Your task to perform on an android device: set default search engine in the chrome app Image 0: 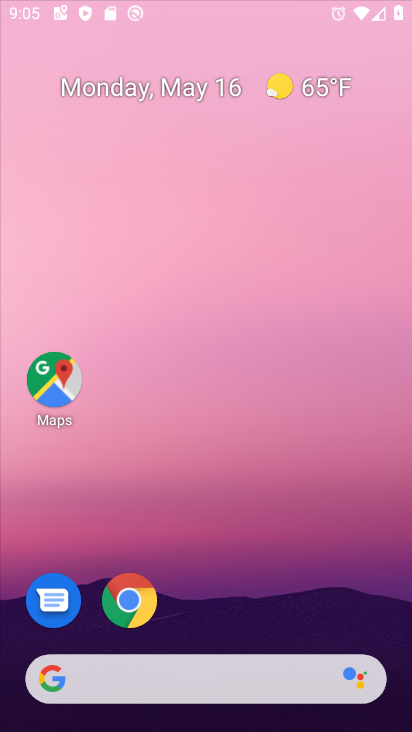
Step 0: click (329, 28)
Your task to perform on an android device: set default search engine in the chrome app Image 1: 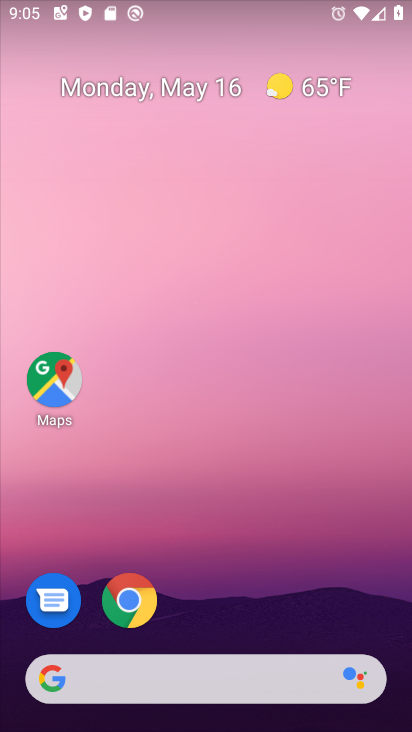
Step 1: drag from (177, 628) to (193, 21)
Your task to perform on an android device: set default search engine in the chrome app Image 2: 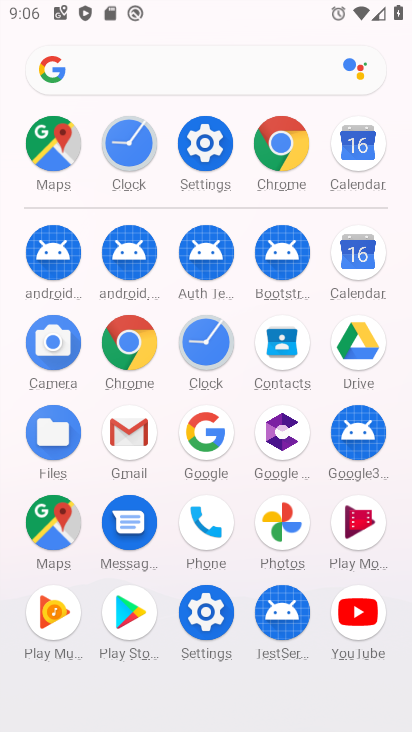
Step 2: click (124, 346)
Your task to perform on an android device: set default search engine in the chrome app Image 3: 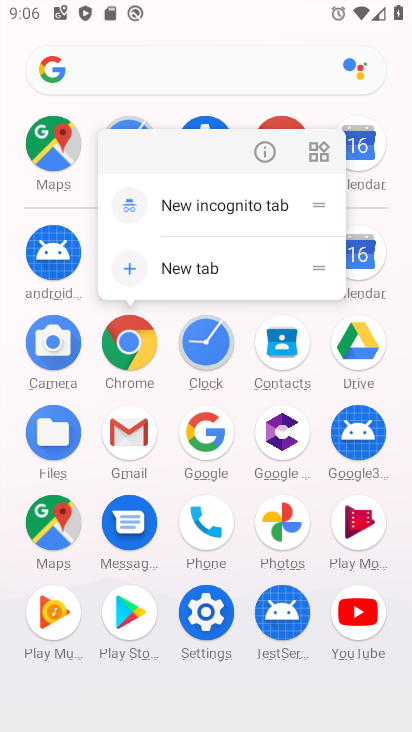
Step 3: click (277, 150)
Your task to perform on an android device: set default search engine in the chrome app Image 4: 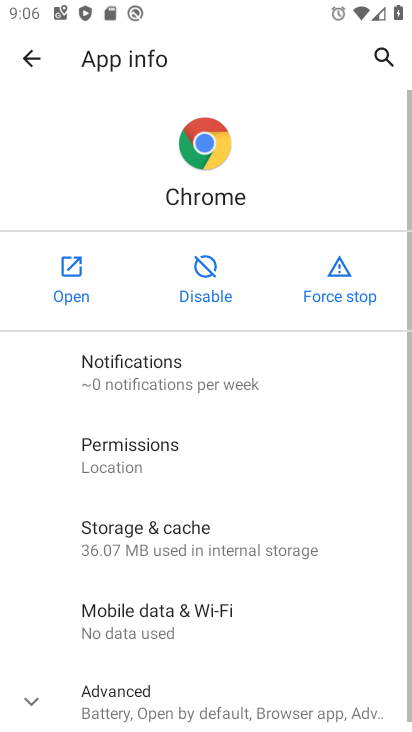
Step 4: click (55, 270)
Your task to perform on an android device: set default search engine in the chrome app Image 5: 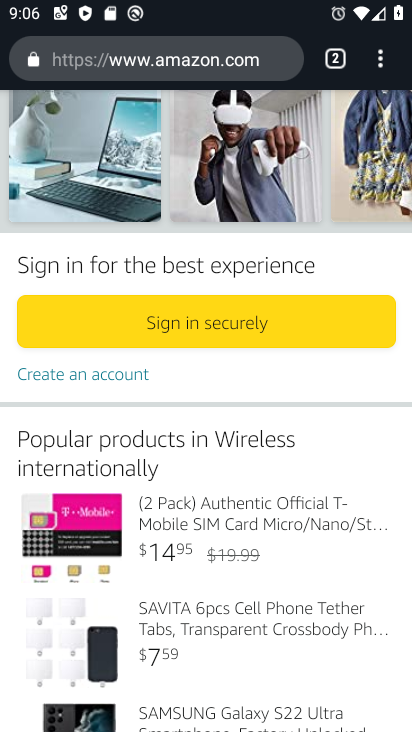
Step 5: drag from (244, 151) to (362, 626)
Your task to perform on an android device: set default search engine in the chrome app Image 6: 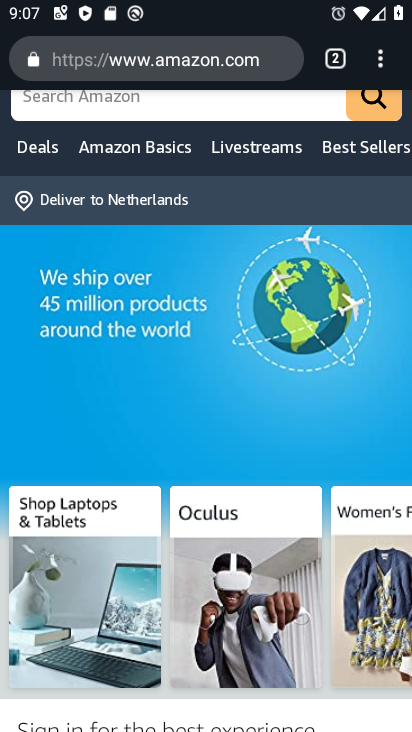
Step 6: click (388, 64)
Your task to perform on an android device: set default search engine in the chrome app Image 7: 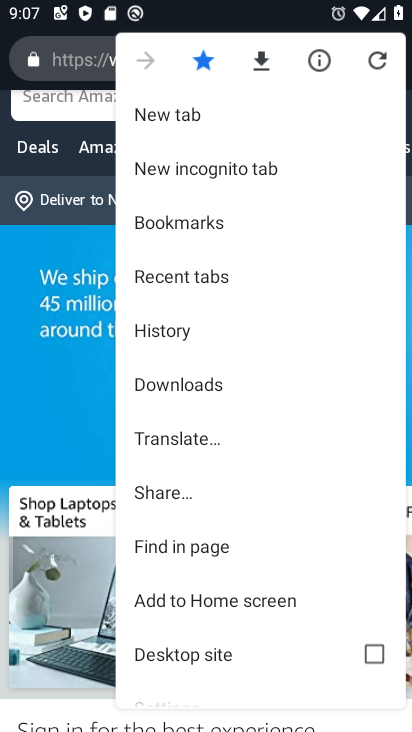
Step 7: drag from (236, 642) to (272, 145)
Your task to perform on an android device: set default search engine in the chrome app Image 8: 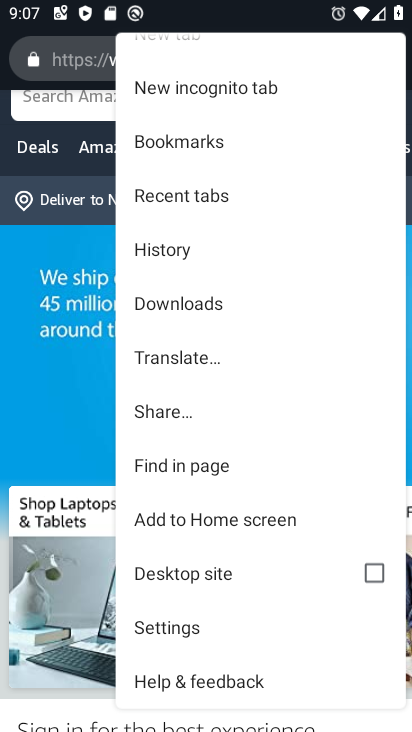
Step 8: click (200, 626)
Your task to perform on an android device: set default search engine in the chrome app Image 9: 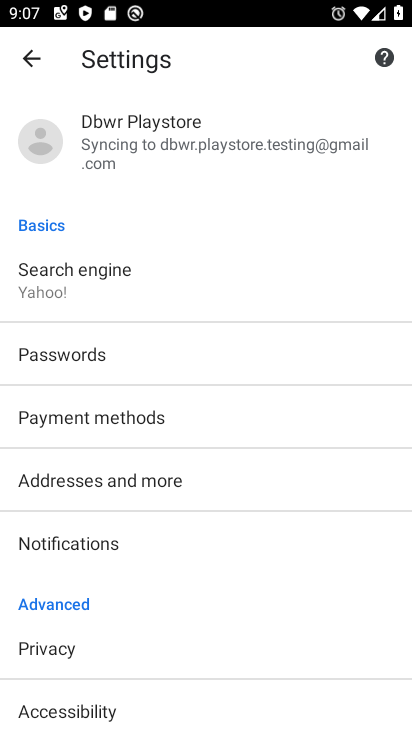
Step 9: click (93, 279)
Your task to perform on an android device: set default search engine in the chrome app Image 10: 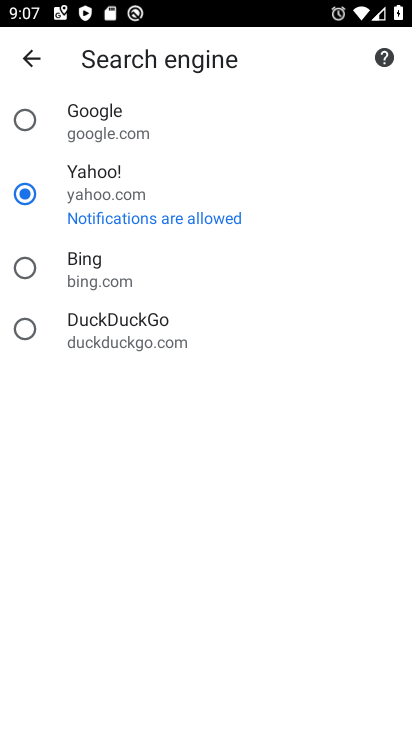
Step 10: click (156, 123)
Your task to perform on an android device: set default search engine in the chrome app Image 11: 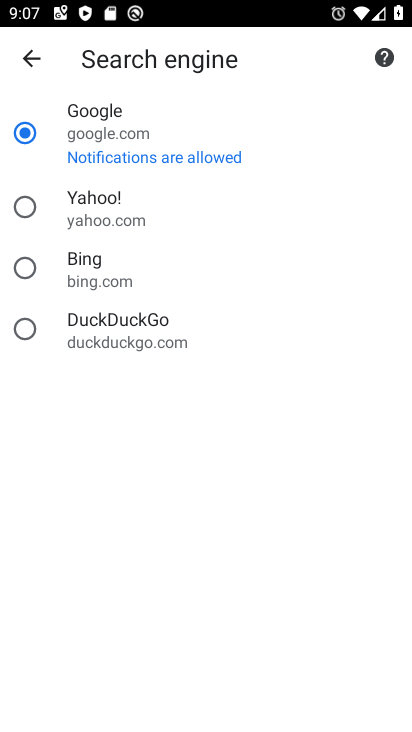
Step 11: task complete